Your task to perform on an android device: show emergency info Image 0: 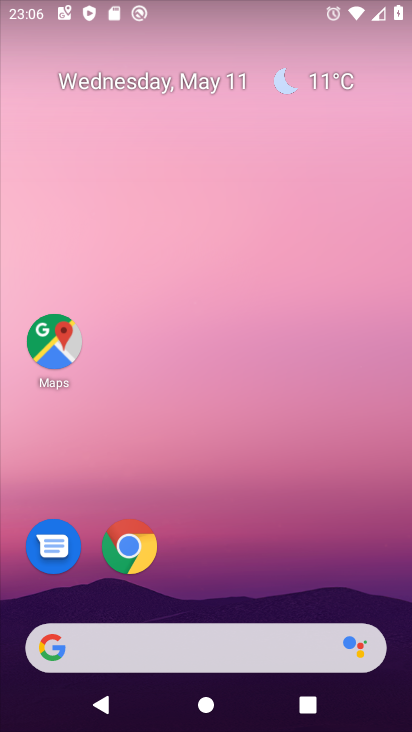
Step 0: drag from (399, 632) to (298, 32)
Your task to perform on an android device: show emergency info Image 1: 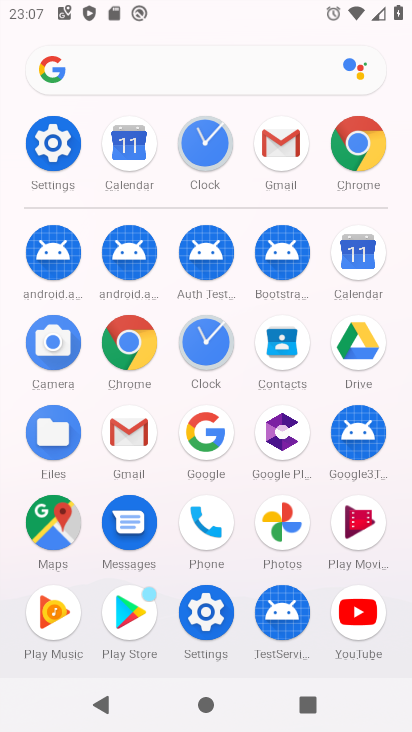
Step 1: click (207, 617)
Your task to perform on an android device: show emergency info Image 2: 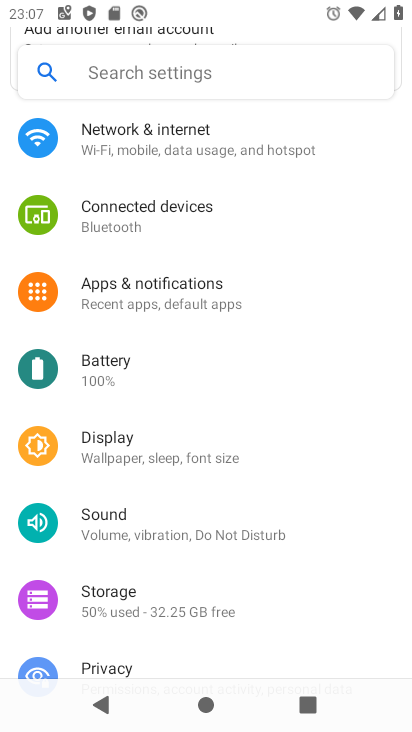
Step 2: drag from (279, 616) to (279, 245)
Your task to perform on an android device: show emergency info Image 3: 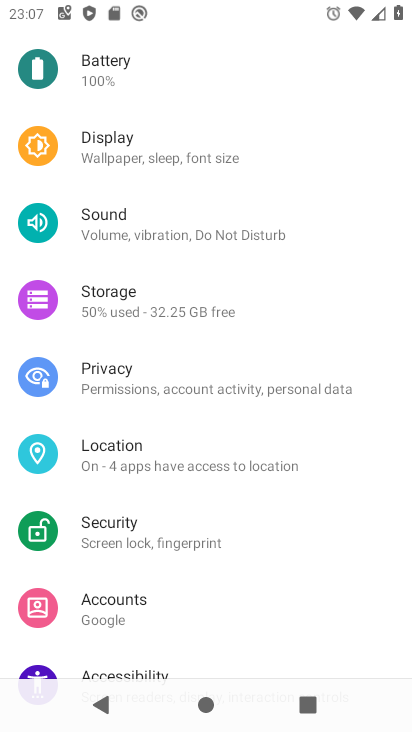
Step 3: drag from (233, 638) to (305, 204)
Your task to perform on an android device: show emergency info Image 4: 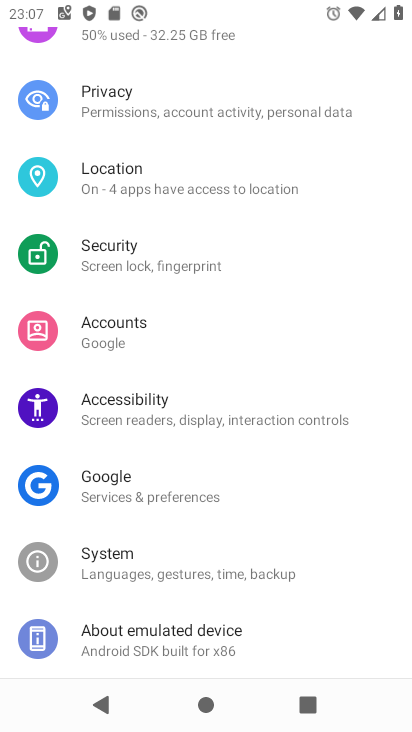
Step 4: click (127, 633)
Your task to perform on an android device: show emergency info Image 5: 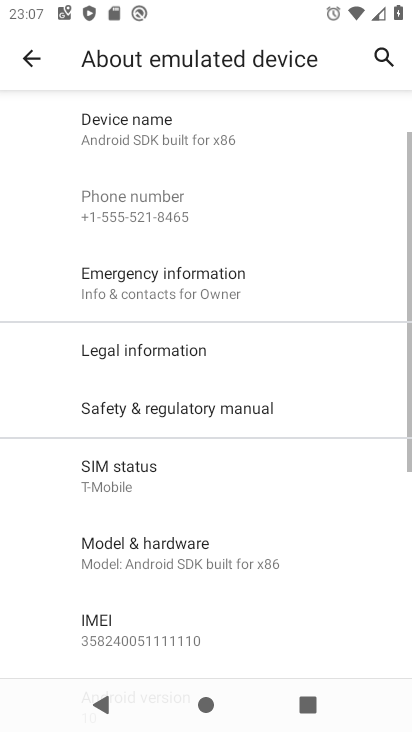
Step 5: click (148, 269)
Your task to perform on an android device: show emergency info Image 6: 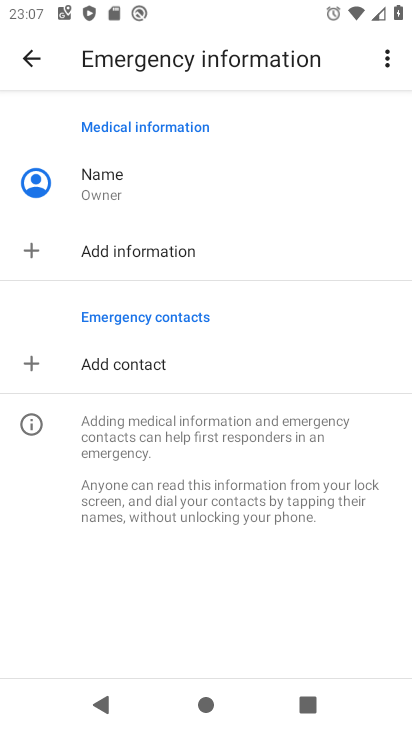
Step 6: task complete